Your task to perform on an android device: open a new tab in the chrome app Image 0: 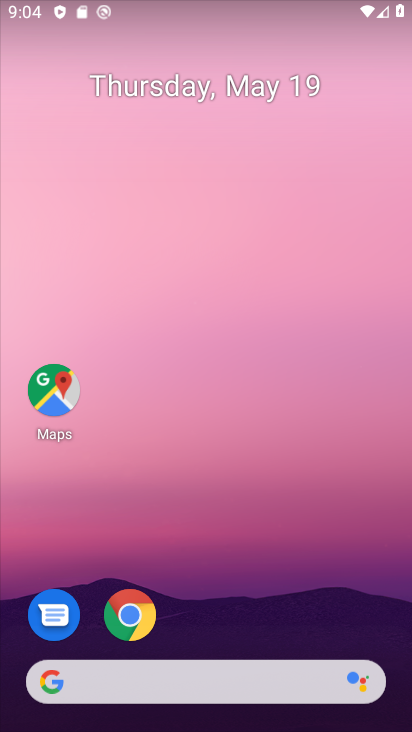
Step 0: click (138, 609)
Your task to perform on an android device: open a new tab in the chrome app Image 1: 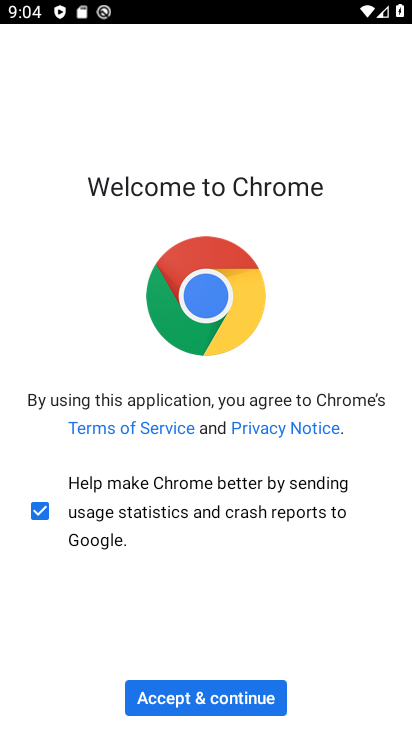
Step 1: click (230, 693)
Your task to perform on an android device: open a new tab in the chrome app Image 2: 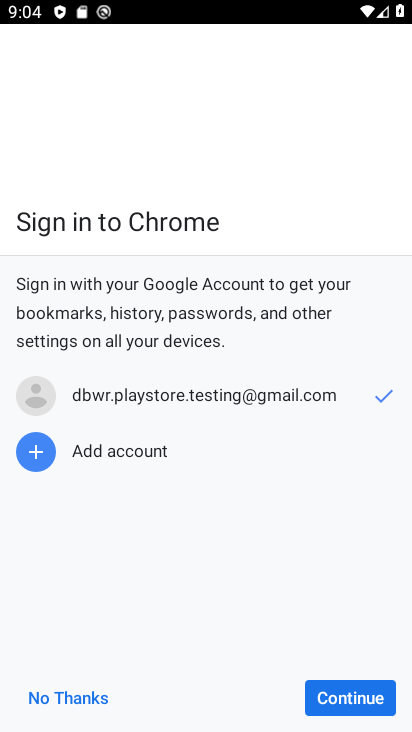
Step 2: click (315, 703)
Your task to perform on an android device: open a new tab in the chrome app Image 3: 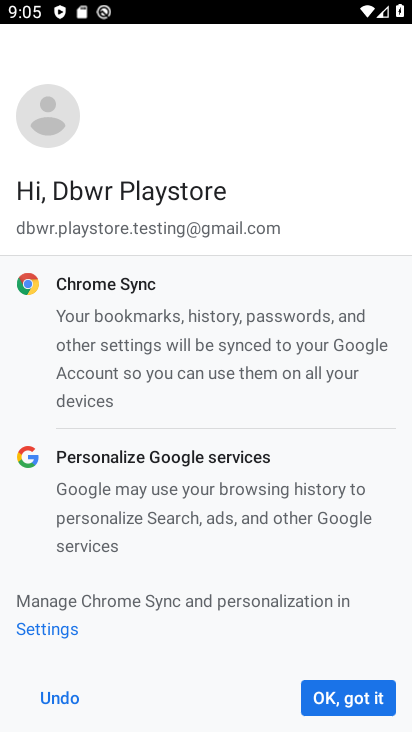
Step 3: click (376, 681)
Your task to perform on an android device: open a new tab in the chrome app Image 4: 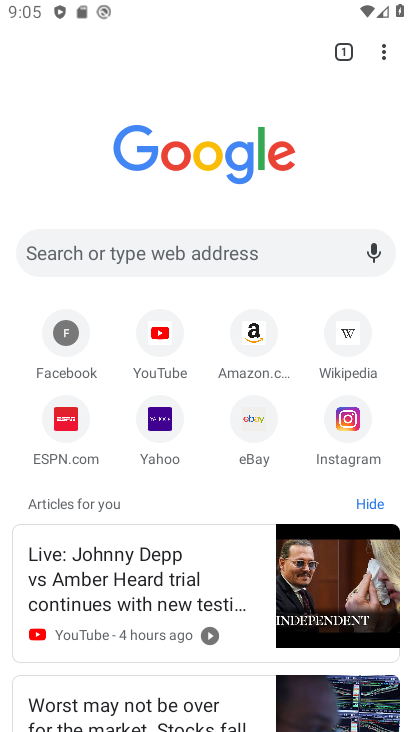
Step 4: click (385, 63)
Your task to perform on an android device: open a new tab in the chrome app Image 5: 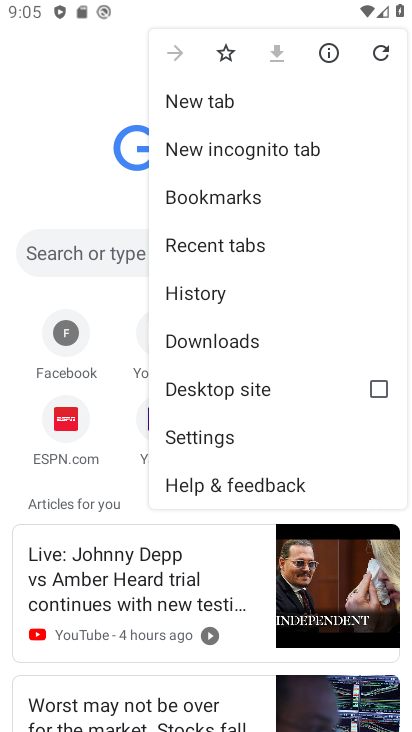
Step 5: click (235, 113)
Your task to perform on an android device: open a new tab in the chrome app Image 6: 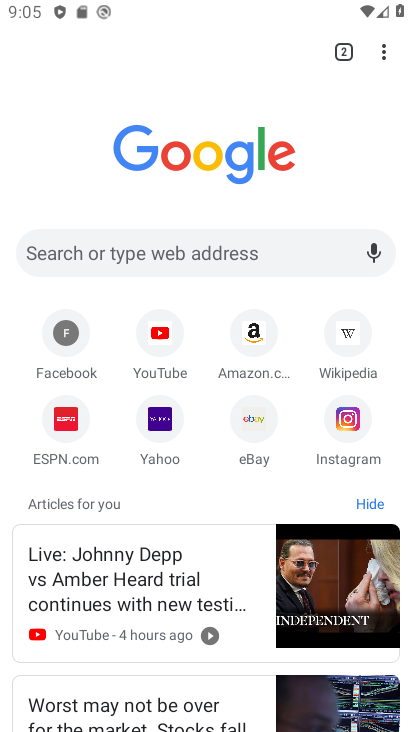
Step 6: task complete